Your task to perform on an android device: Is it going to rain this weekend? Image 0: 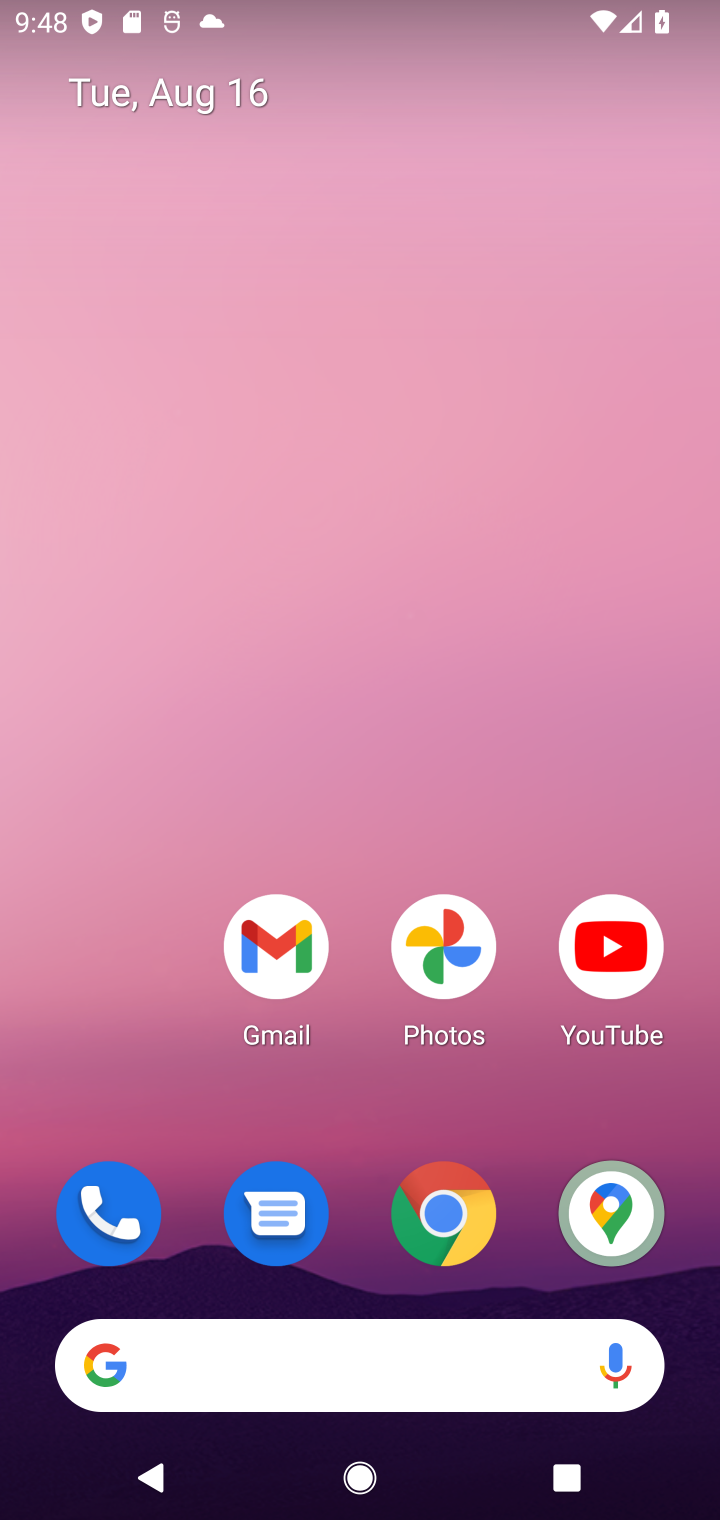
Step 0: click (440, 1249)
Your task to perform on an android device: Is it going to rain this weekend? Image 1: 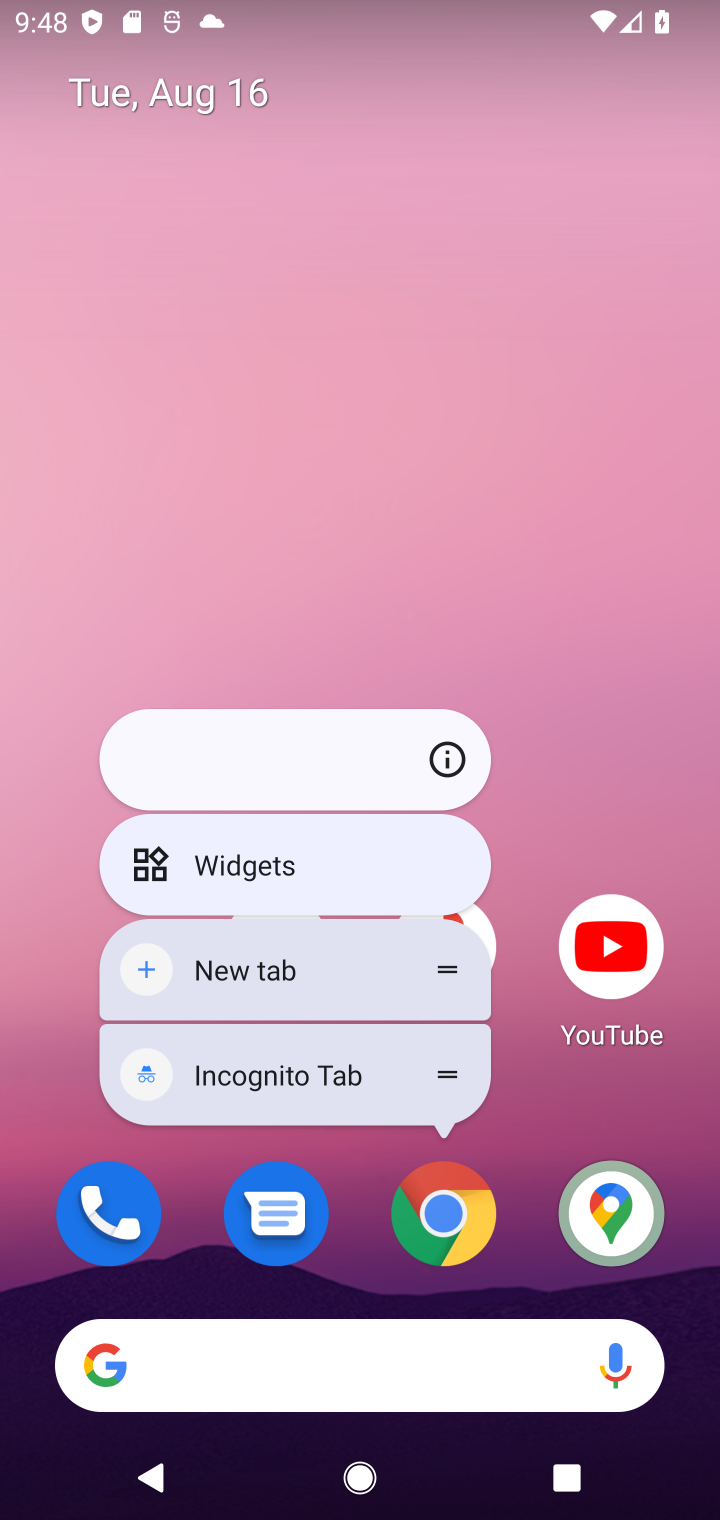
Step 1: click (413, 1199)
Your task to perform on an android device: Is it going to rain this weekend? Image 2: 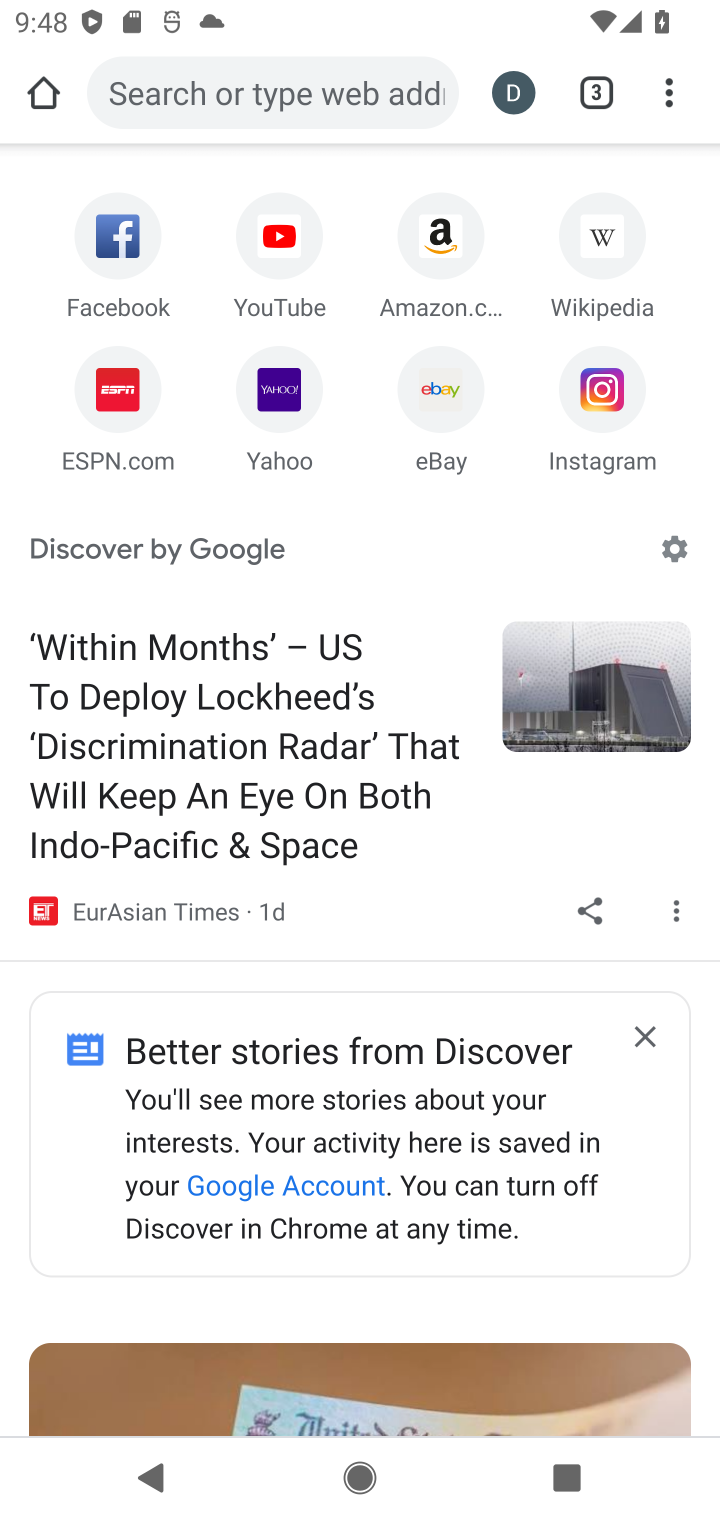
Step 2: click (291, 78)
Your task to perform on an android device: Is it going to rain this weekend? Image 3: 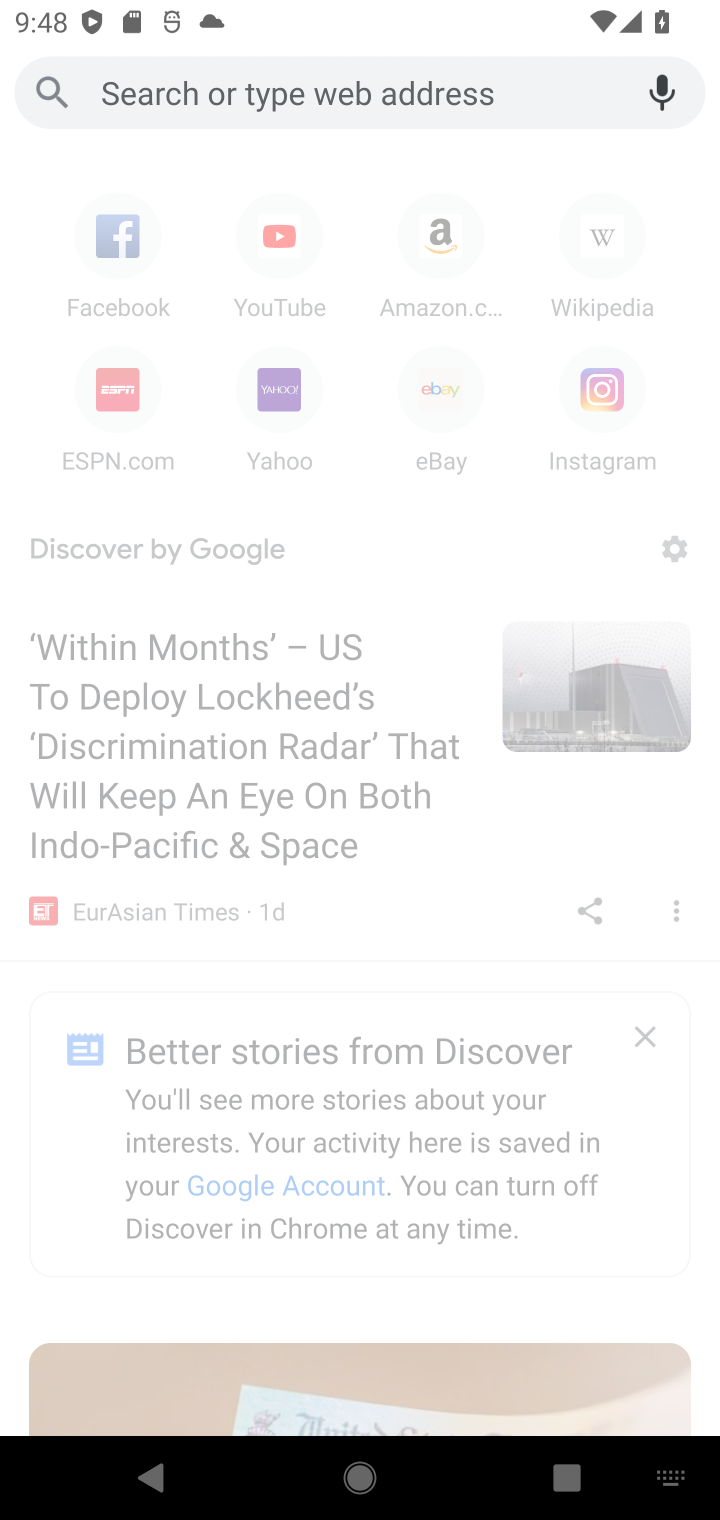
Step 3: type "Is it going to rain this weekend? "
Your task to perform on an android device: Is it going to rain this weekend? Image 4: 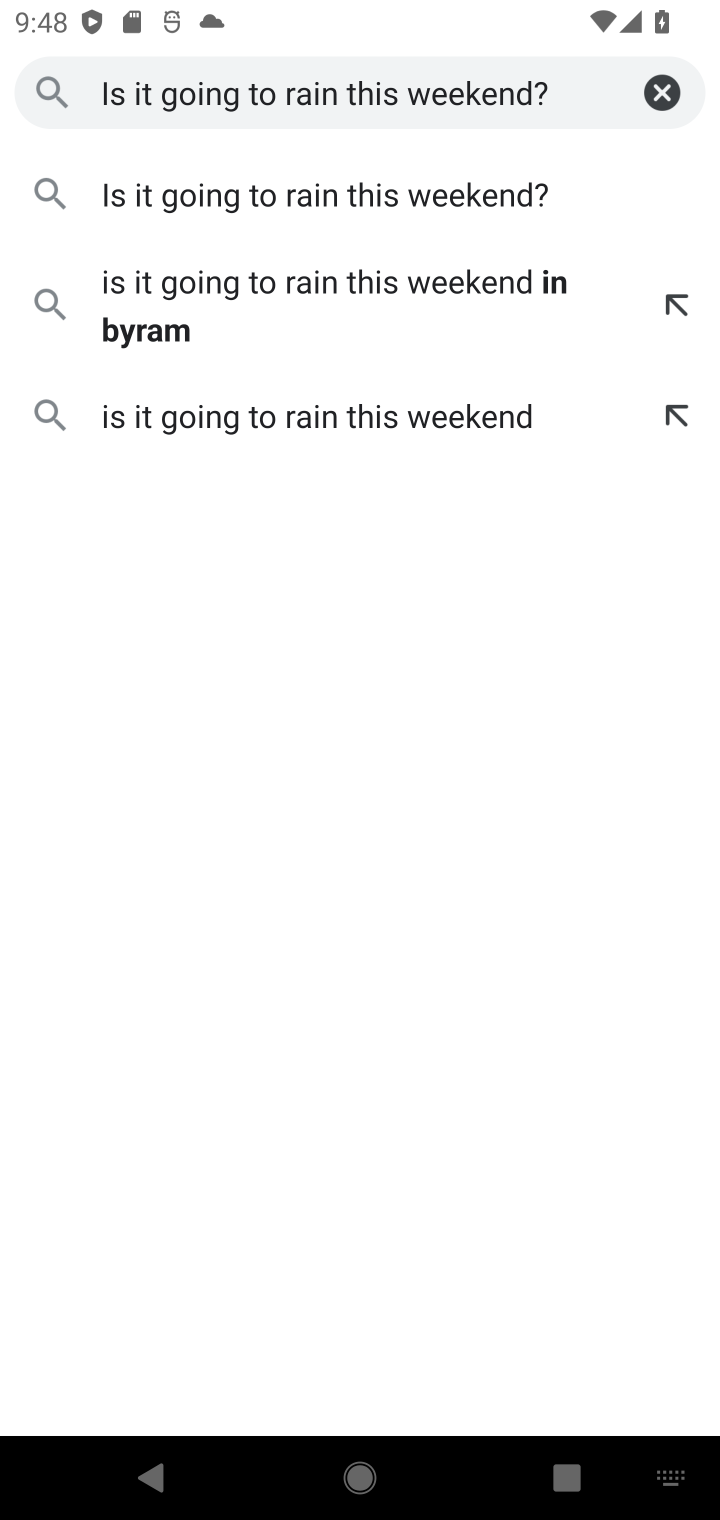
Step 4: click (363, 202)
Your task to perform on an android device: Is it going to rain this weekend? Image 5: 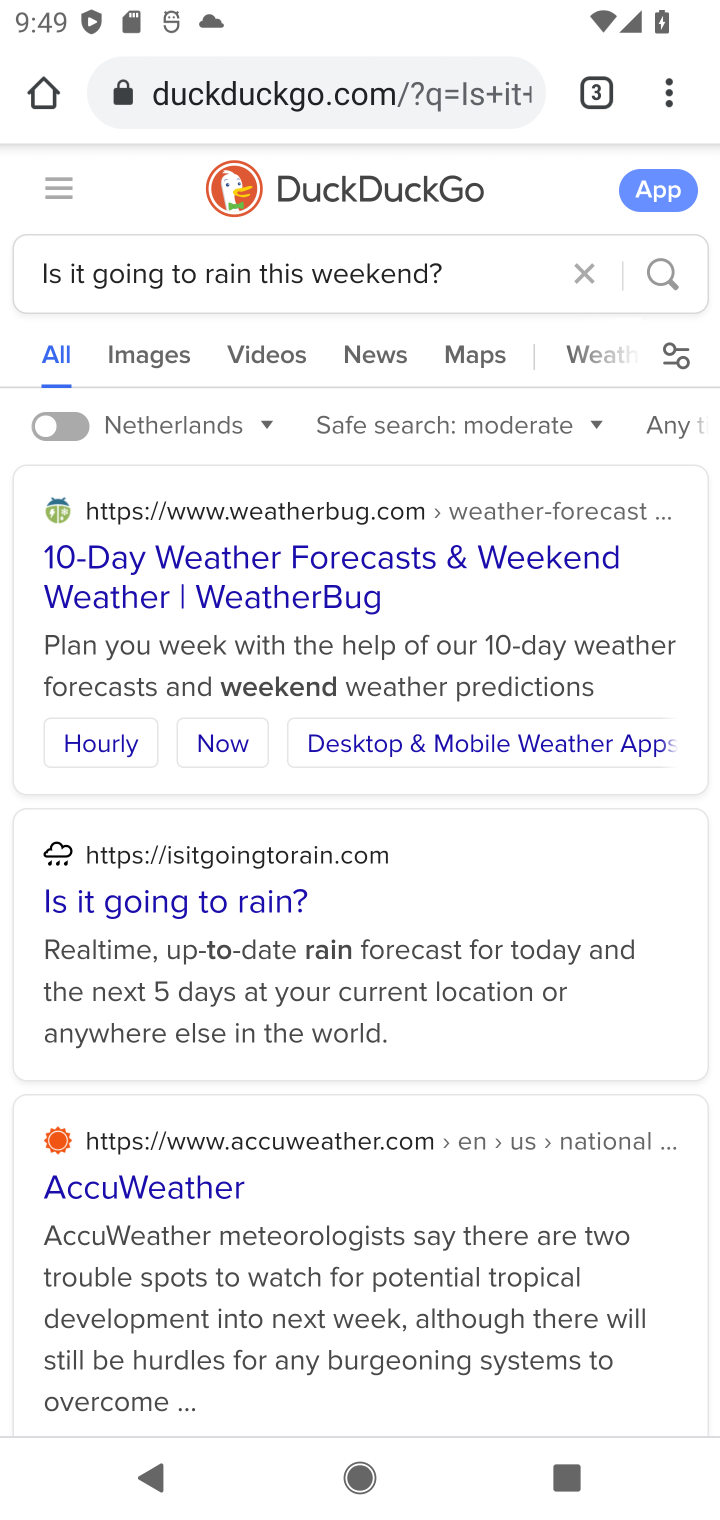
Step 5: task complete